Your task to perform on an android device: View the shopping cart on target.com. Search for "bose soundlink mini" on target.com, select the first entry, and add it to the cart. Image 0: 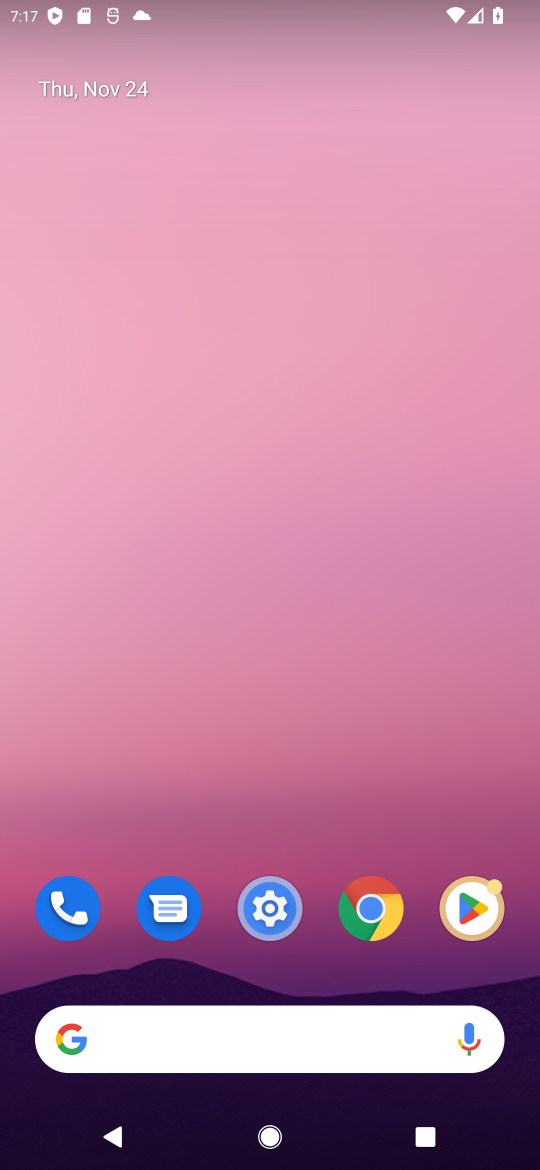
Step 0: click (241, 1041)
Your task to perform on an android device: View the shopping cart on target.com. Search for "bose soundlink mini" on target.com, select the first entry, and add it to the cart. Image 1: 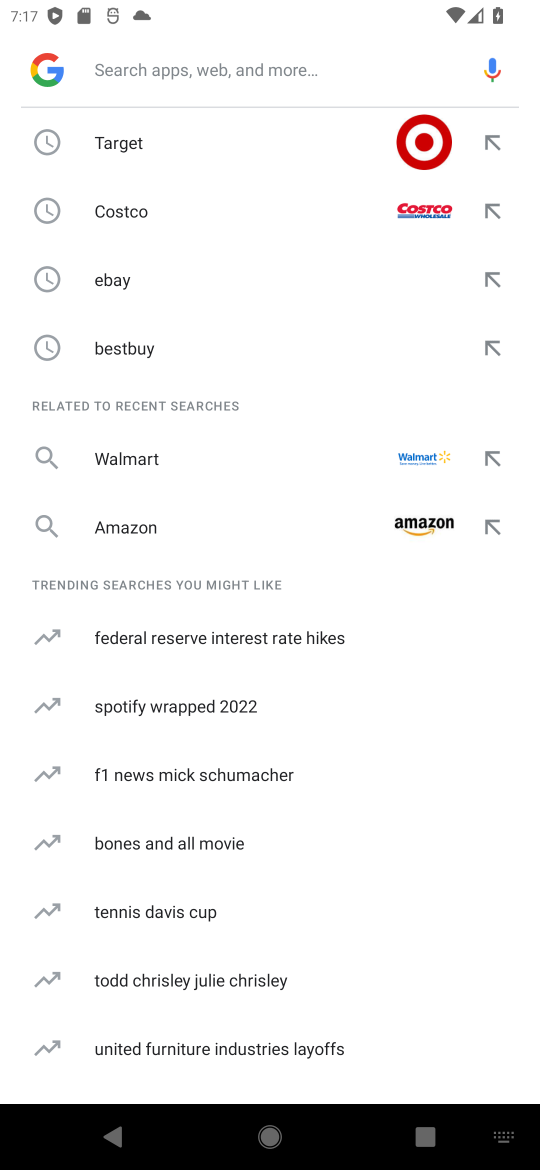
Step 1: click (251, 136)
Your task to perform on an android device: View the shopping cart on target.com. Search for "bose soundlink mini" on target.com, select the first entry, and add it to the cart. Image 2: 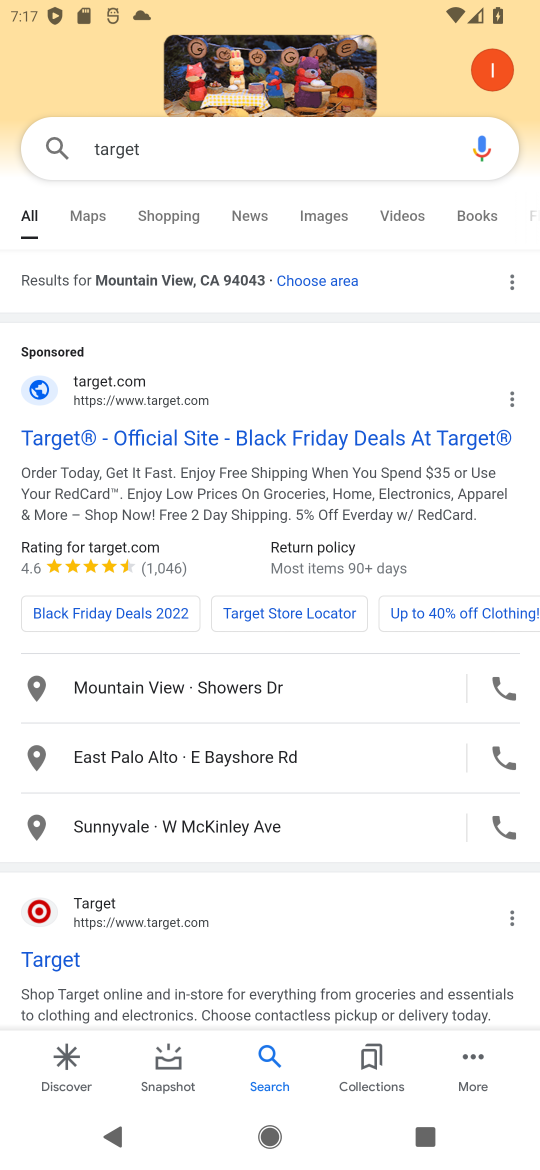
Step 2: click (201, 428)
Your task to perform on an android device: View the shopping cart on target.com. Search for "bose soundlink mini" on target.com, select the first entry, and add it to the cart. Image 3: 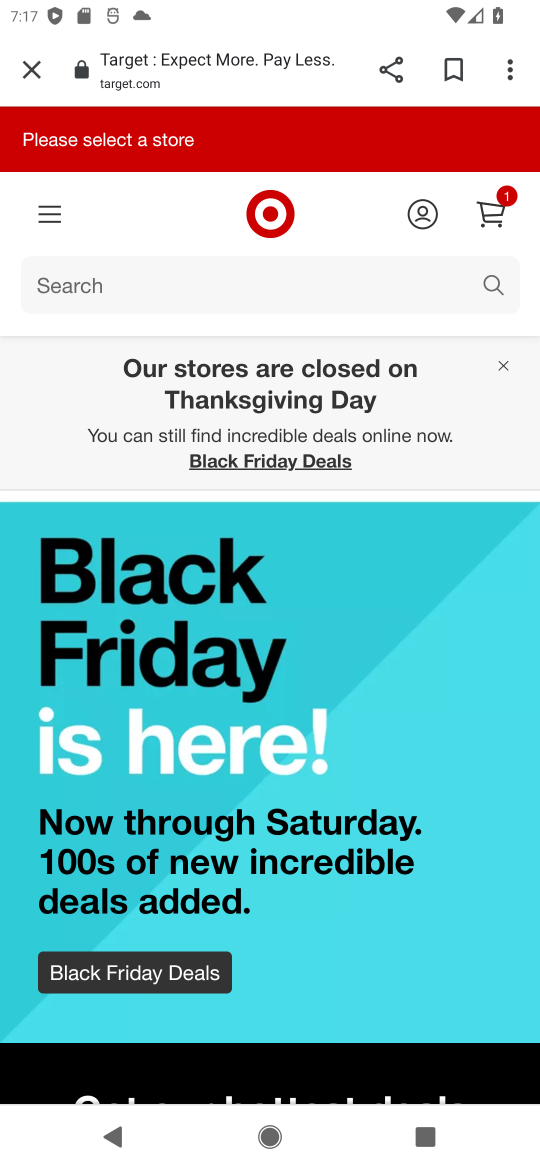
Step 3: click (221, 282)
Your task to perform on an android device: View the shopping cart on target.com. Search for "bose soundlink mini" on target.com, select the first entry, and add it to the cart. Image 4: 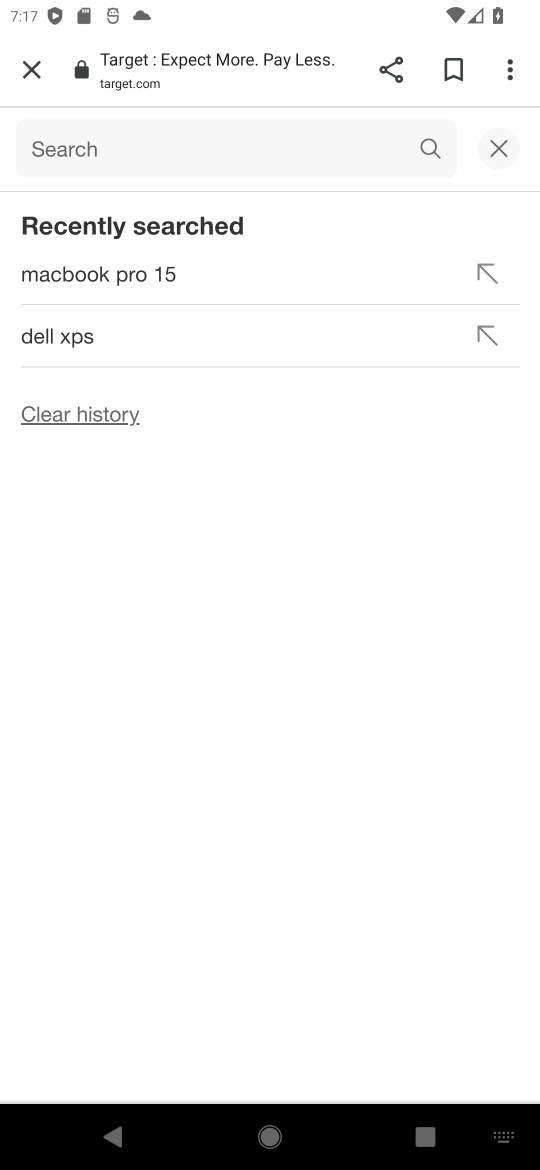
Step 4: type "bose sound link"
Your task to perform on an android device: View the shopping cart on target.com. Search for "bose soundlink mini" on target.com, select the first entry, and add it to the cart. Image 5: 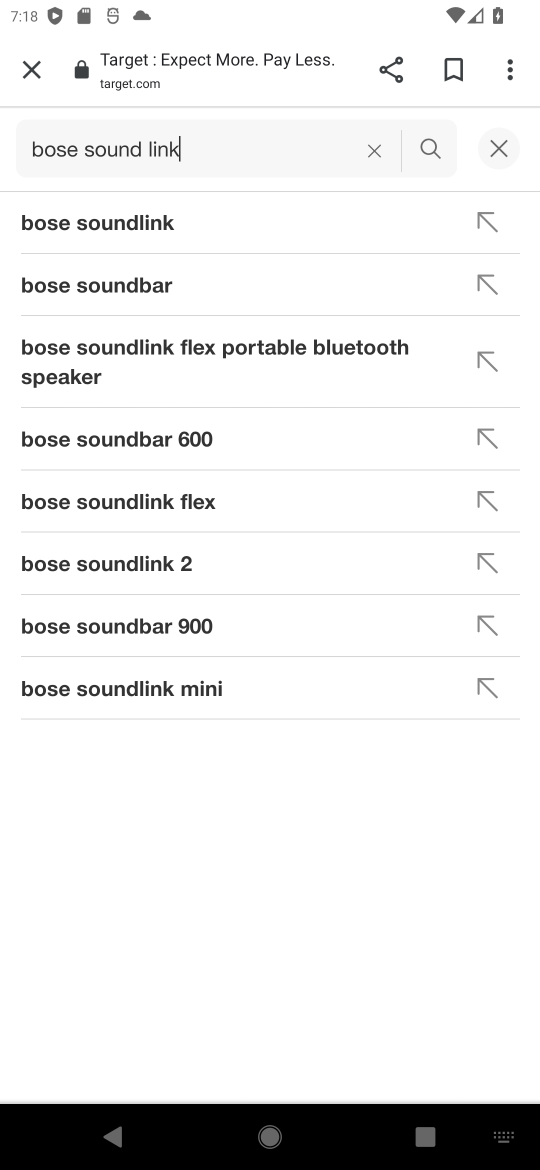
Step 5: click (186, 689)
Your task to perform on an android device: View the shopping cart on target.com. Search for "bose soundlink mini" on target.com, select the first entry, and add it to the cart. Image 6: 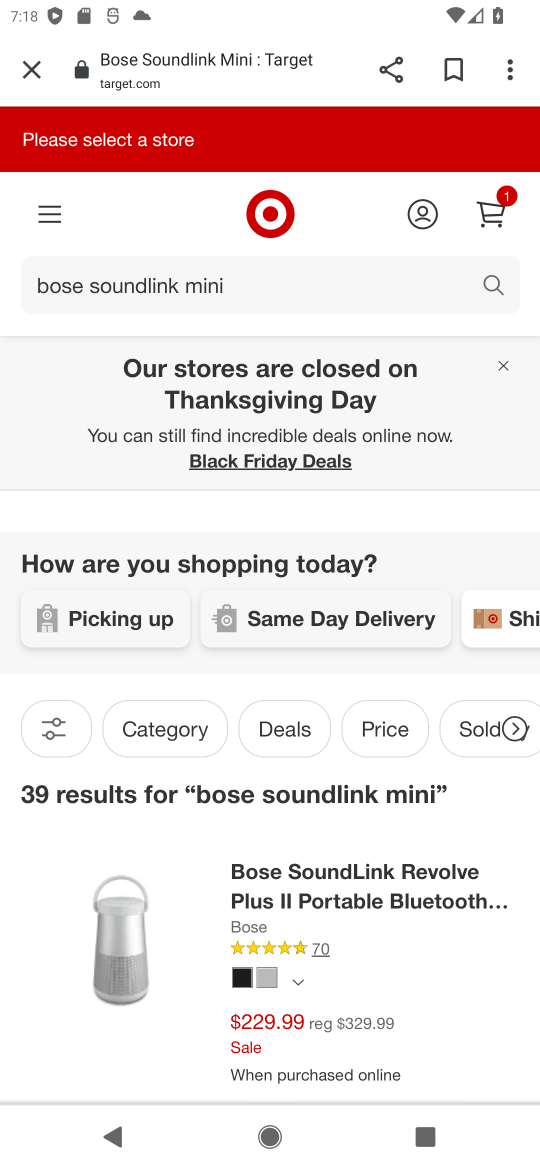
Step 6: drag from (153, 1044) to (123, 653)
Your task to perform on an android device: View the shopping cart on target.com. Search for "bose soundlink mini" on target.com, select the first entry, and add it to the cart. Image 7: 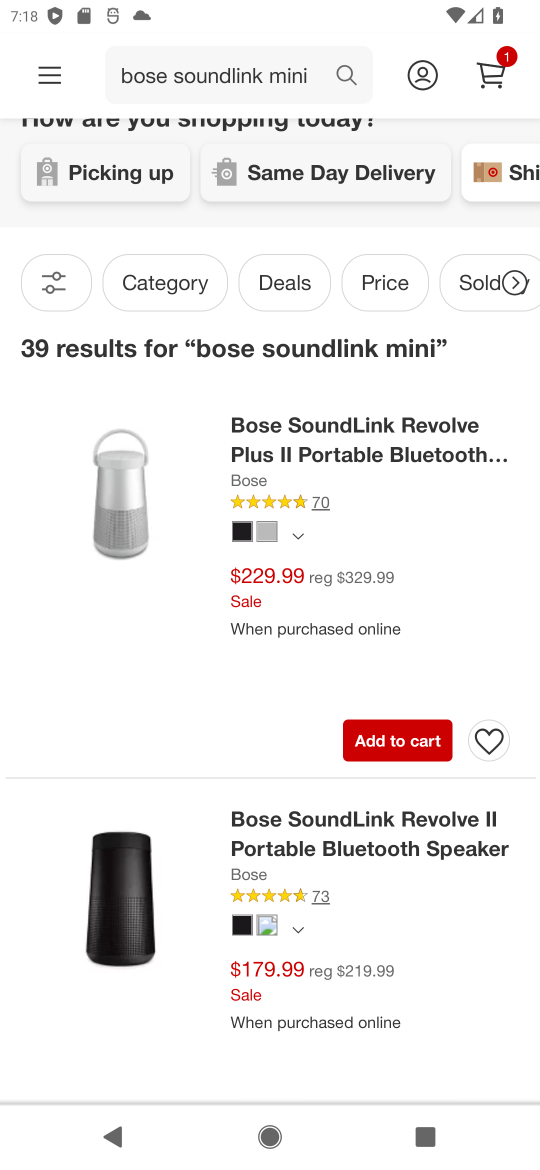
Step 7: click (383, 756)
Your task to perform on an android device: View the shopping cart on target.com. Search for "bose soundlink mini" on target.com, select the first entry, and add it to the cart. Image 8: 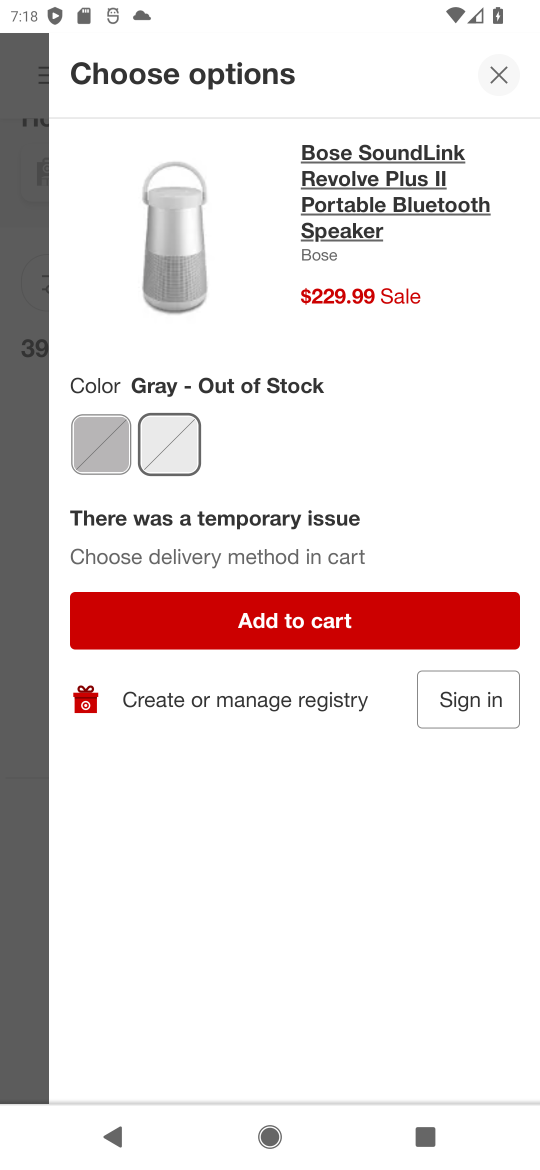
Step 8: click (395, 648)
Your task to perform on an android device: View the shopping cart on target.com. Search for "bose soundlink mini" on target.com, select the first entry, and add it to the cart. Image 9: 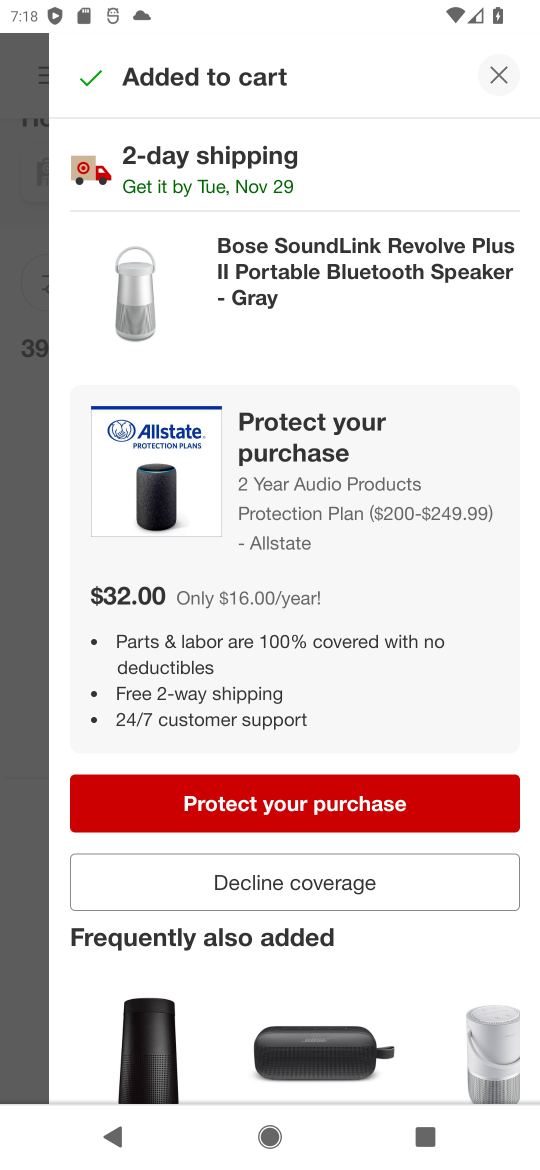
Step 9: task complete